Your task to perform on an android device: see creations saved in the google photos Image 0: 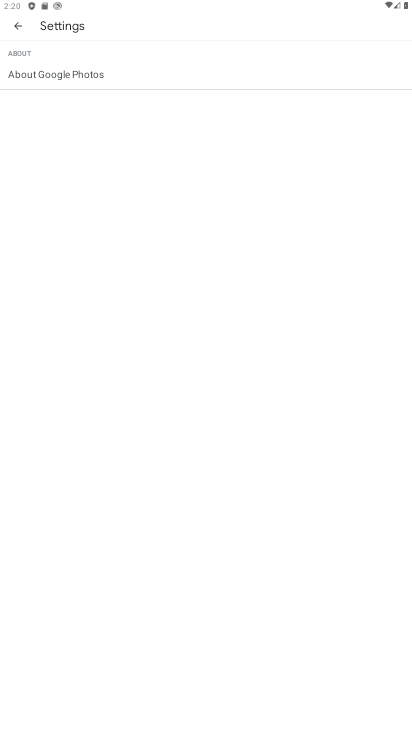
Step 0: press home button
Your task to perform on an android device: see creations saved in the google photos Image 1: 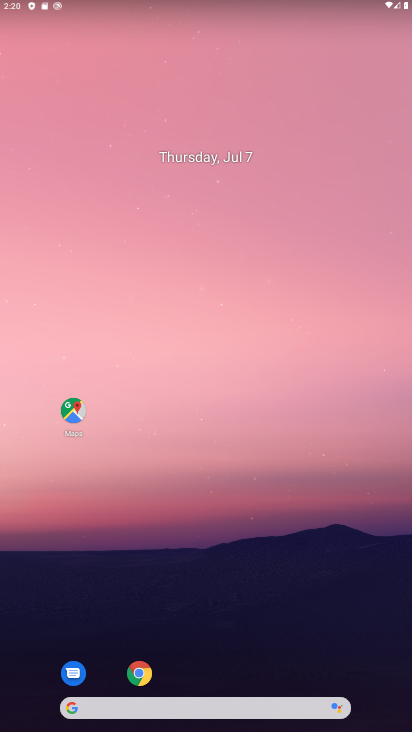
Step 1: drag from (207, 676) to (159, 33)
Your task to perform on an android device: see creations saved in the google photos Image 2: 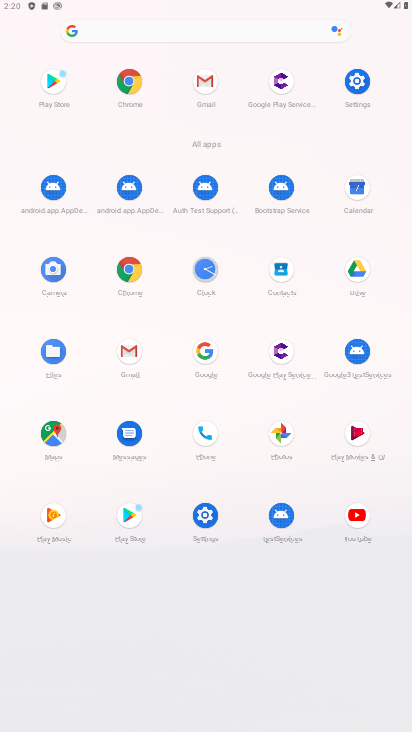
Step 2: click (283, 433)
Your task to perform on an android device: see creations saved in the google photos Image 3: 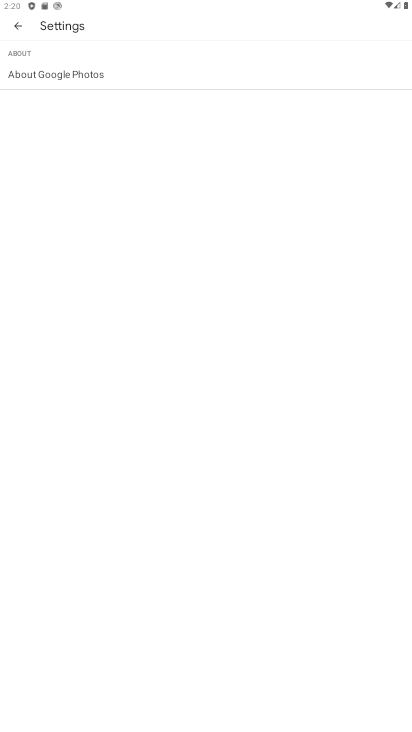
Step 3: click (8, 18)
Your task to perform on an android device: see creations saved in the google photos Image 4: 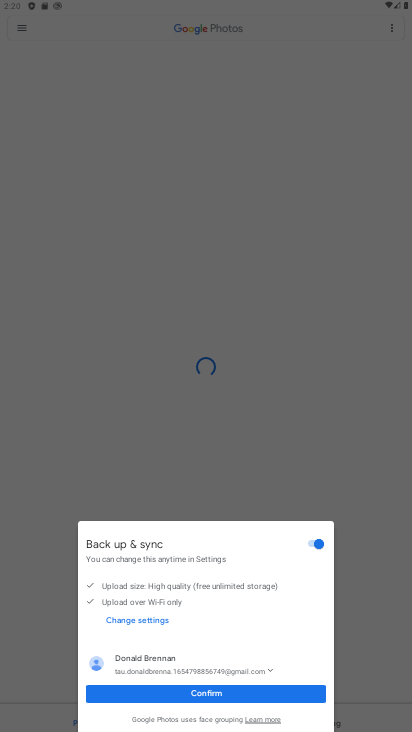
Step 4: click (248, 676)
Your task to perform on an android device: see creations saved in the google photos Image 5: 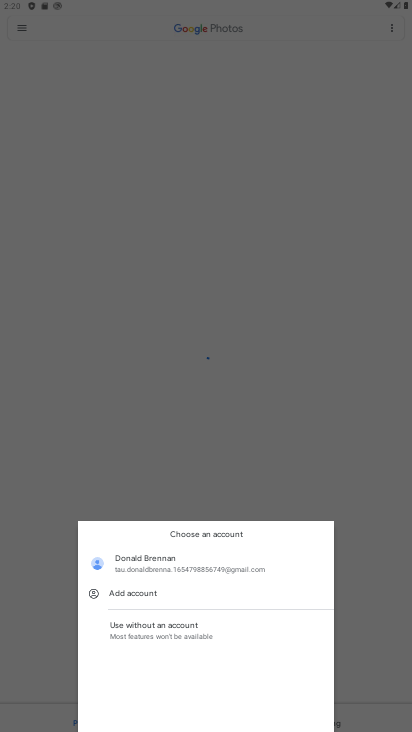
Step 5: click (200, 428)
Your task to perform on an android device: see creations saved in the google photos Image 6: 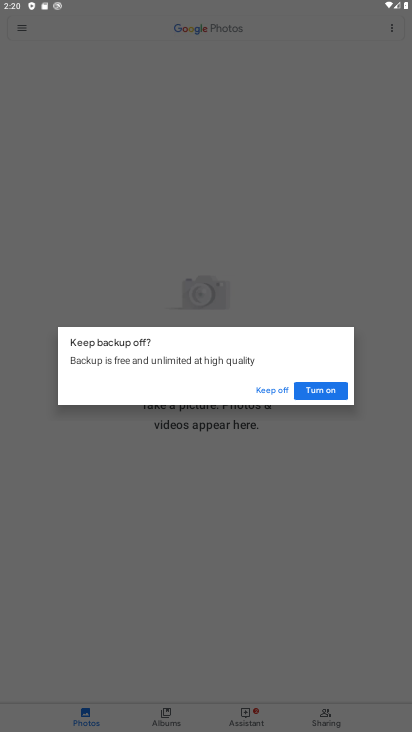
Step 6: click (319, 397)
Your task to perform on an android device: see creations saved in the google photos Image 7: 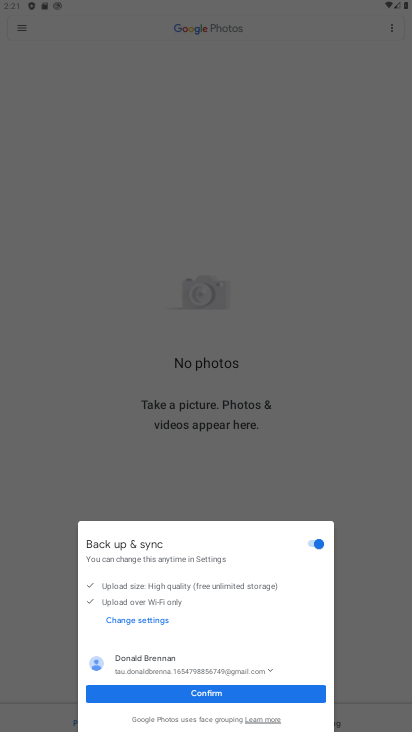
Step 7: click (191, 693)
Your task to perform on an android device: see creations saved in the google photos Image 8: 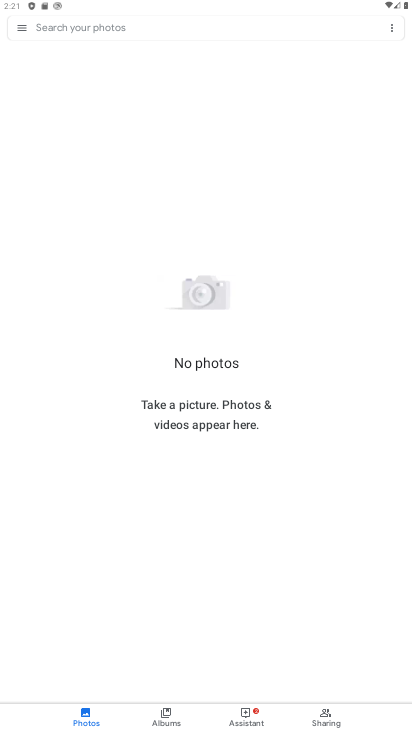
Step 8: click (53, 26)
Your task to perform on an android device: see creations saved in the google photos Image 9: 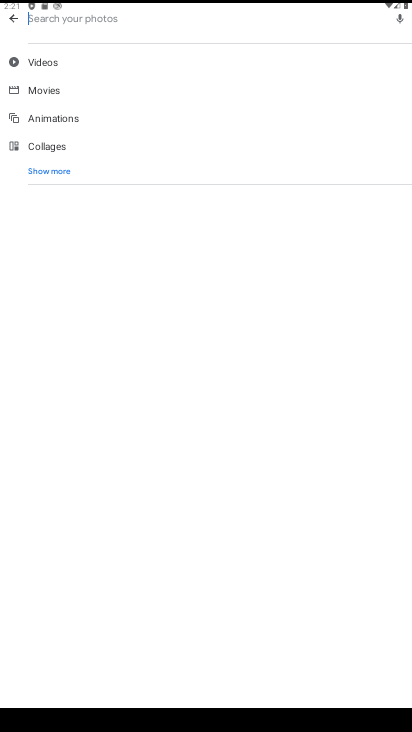
Step 9: click (54, 166)
Your task to perform on an android device: see creations saved in the google photos Image 10: 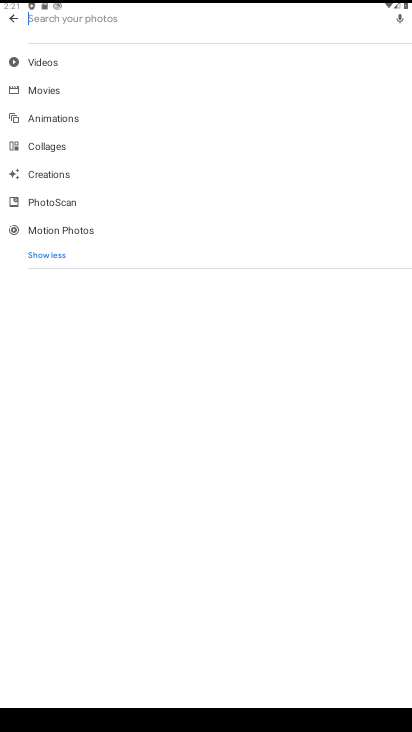
Step 10: drag from (122, 377) to (139, 89)
Your task to perform on an android device: see creations saved in the google photos Image 11: 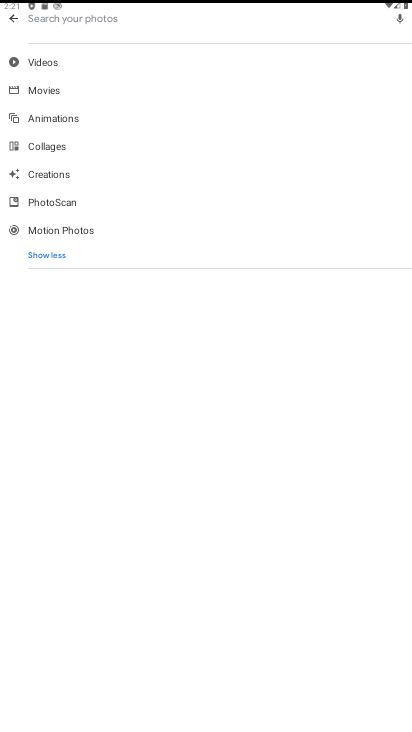
Step 11: click (50, 169)
Your task to perform on an android device: see creations saved in the google photos Image 12: 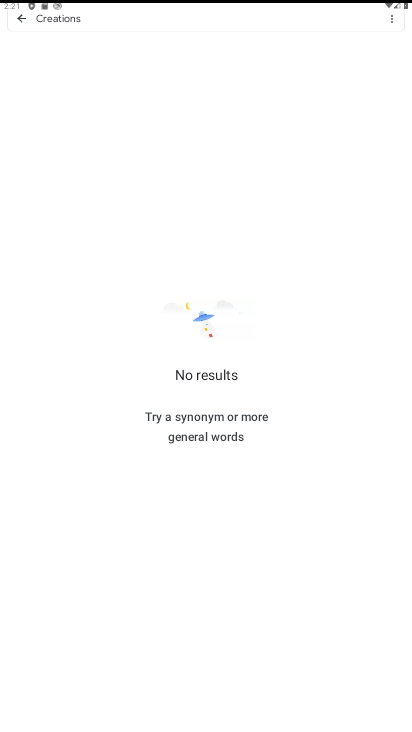
Step 12: task complete